Your task to perform on an android device: Open the Play Movies app and select the watchlist tab. Image 0: 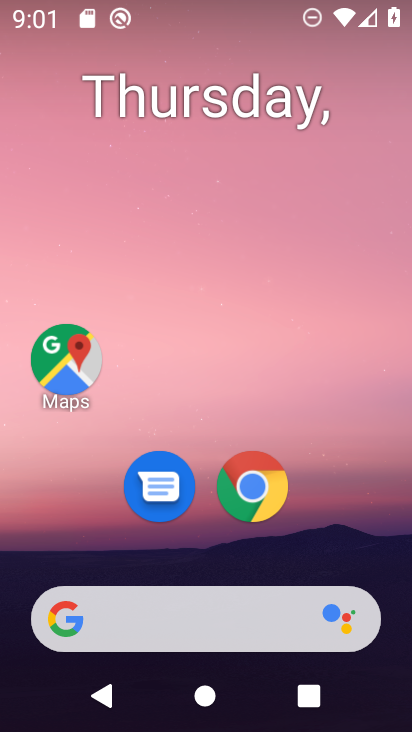
Step 0: drag from (207, 527) to (227, 38)
Your task to perform on an android device: Open the Play Movies app and select the watchlist tab. Image 1: 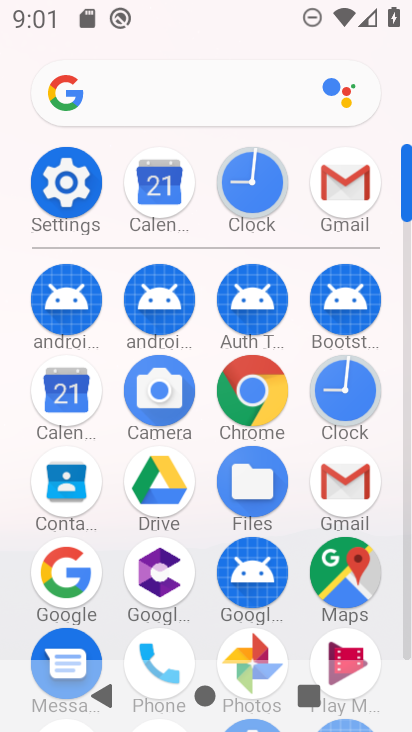
Step 1: click (354, 642)
Your task to perform on an android device: Open the Play Movies app and select the watchlist tab. Image 2: 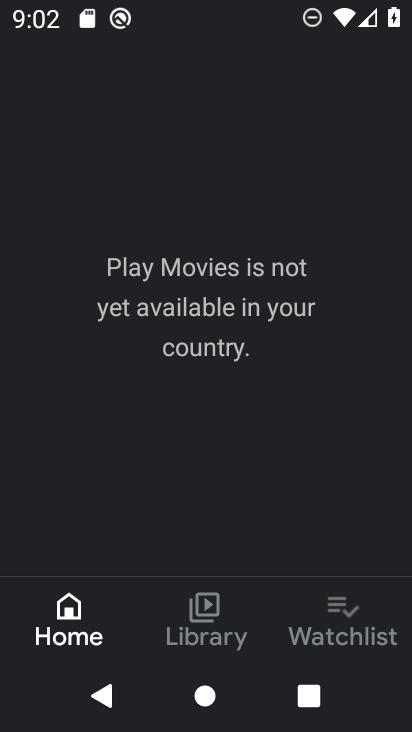
Step 2: click (335, 630)
Your task to perform on an android device: Open the Play Movies app and select the watchlist tab. Image 3: 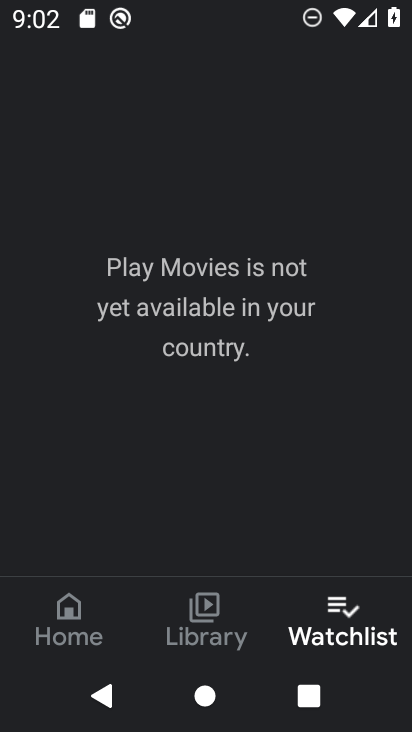
Step 3: task complete